Your task to perform on an android device: Search for vegetarian restaurants on Maps Image 0: 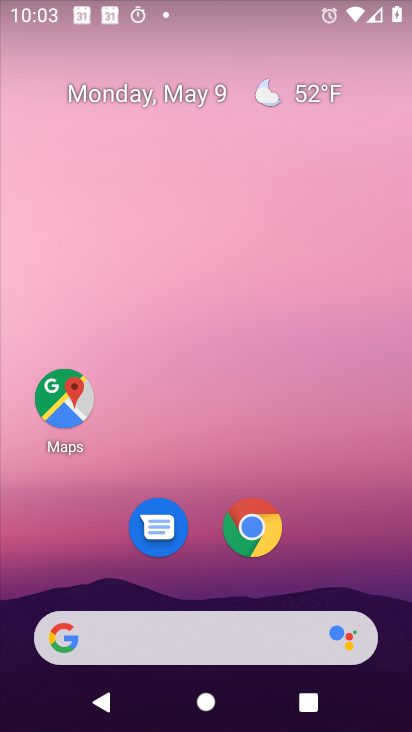
Step 0: click (62, 402)
Your task to perform on an android device: Search for vegetarian restaurants on Maps Image 1: 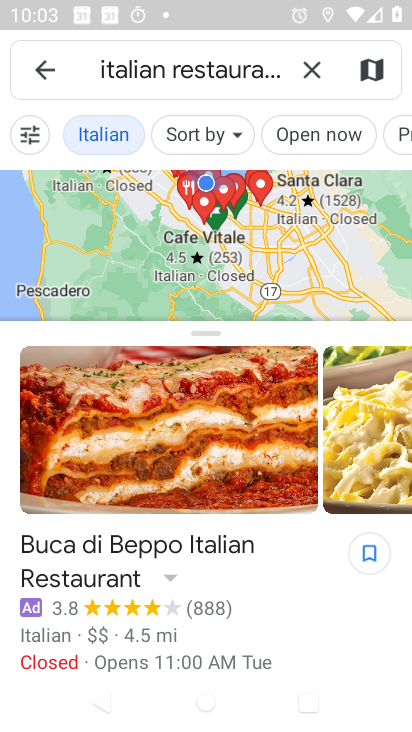
Step 1: click (313, 74)
Your task to perform on an android device: Search for vegetarian restaurants on Maps Image 2: 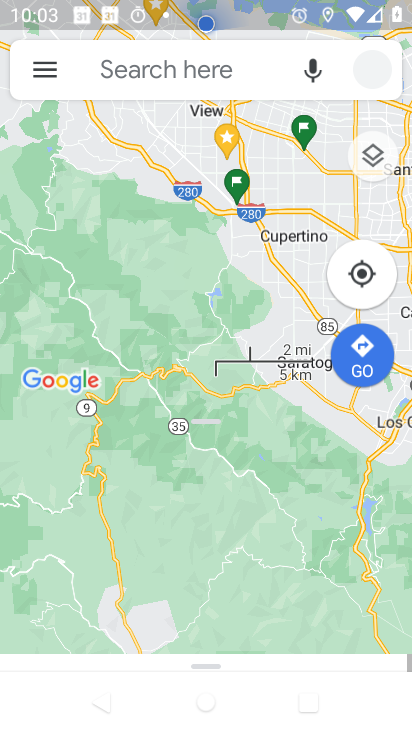
Step 2: click (183, 74)
Your task to perform on an android device: Search for vegetarian restaurants on Maps Image 3: 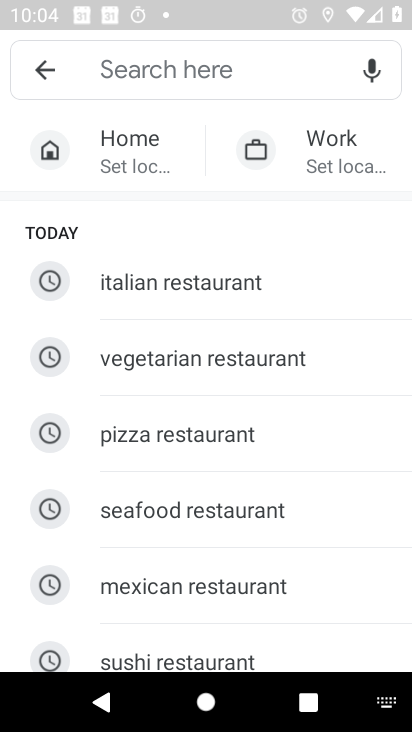
Step 3: click (168, 359)
Your task to perform on an android device: Search for vegetarian restaurants on Maps Image 4: 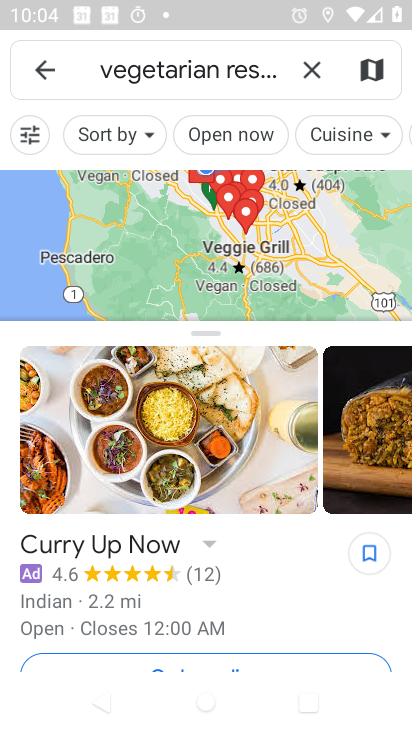
Step 4: task complete